Your task to perform on an android device: Search for Italian restaurants on Maps Image 0: 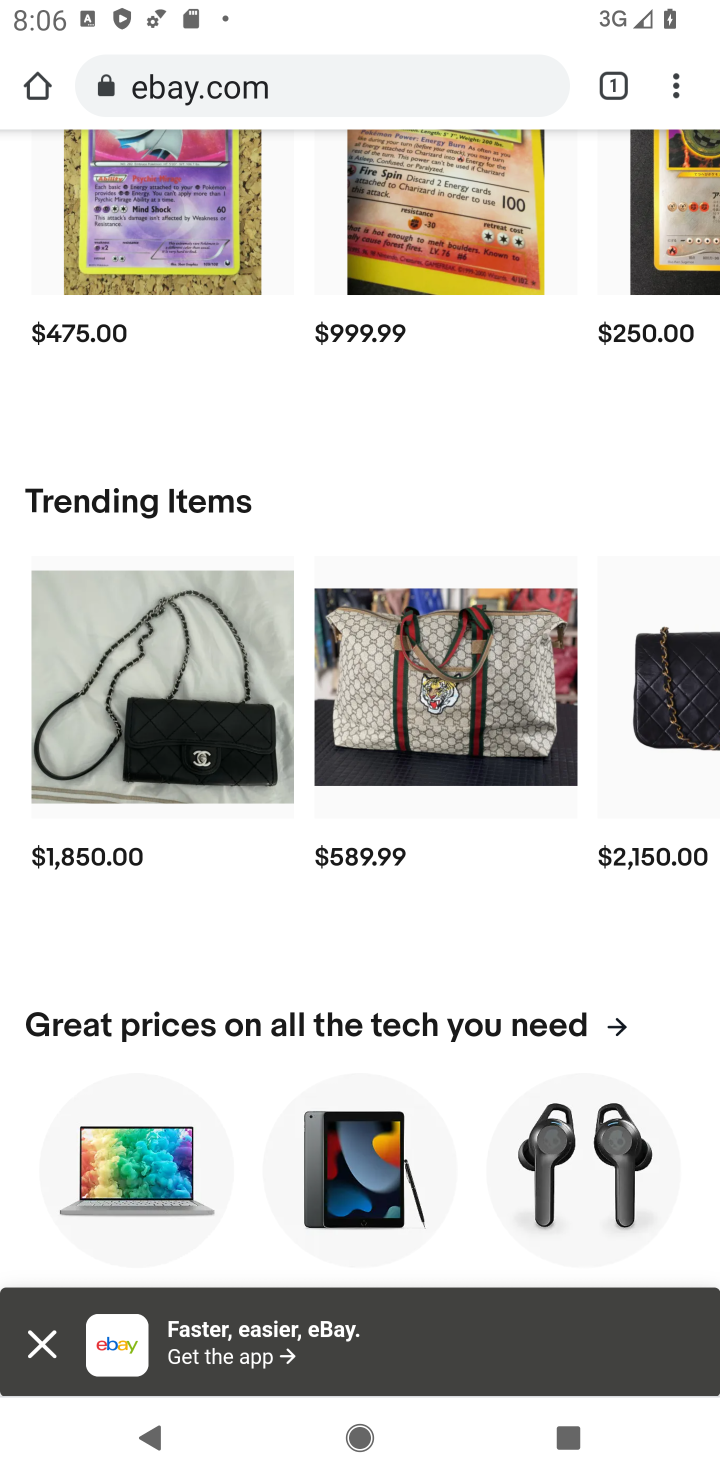
Step 0: press home button
Your task to perform on an android device: Search for Italian restaurants on Maps Image 1: 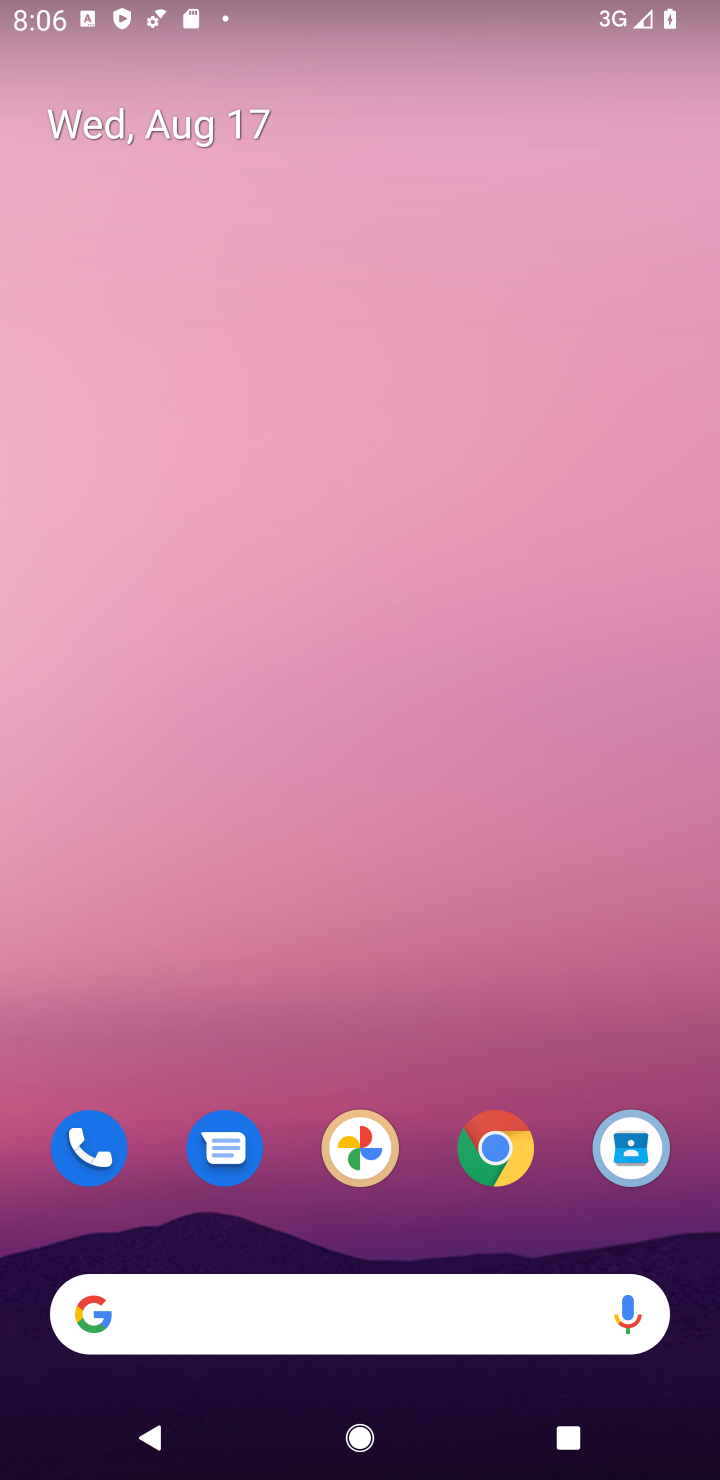
Step 1: drag from (559, 1230) to (575, 221)
Your task to perform on an android device: Search for Italian restaurants on Maps Image 2: 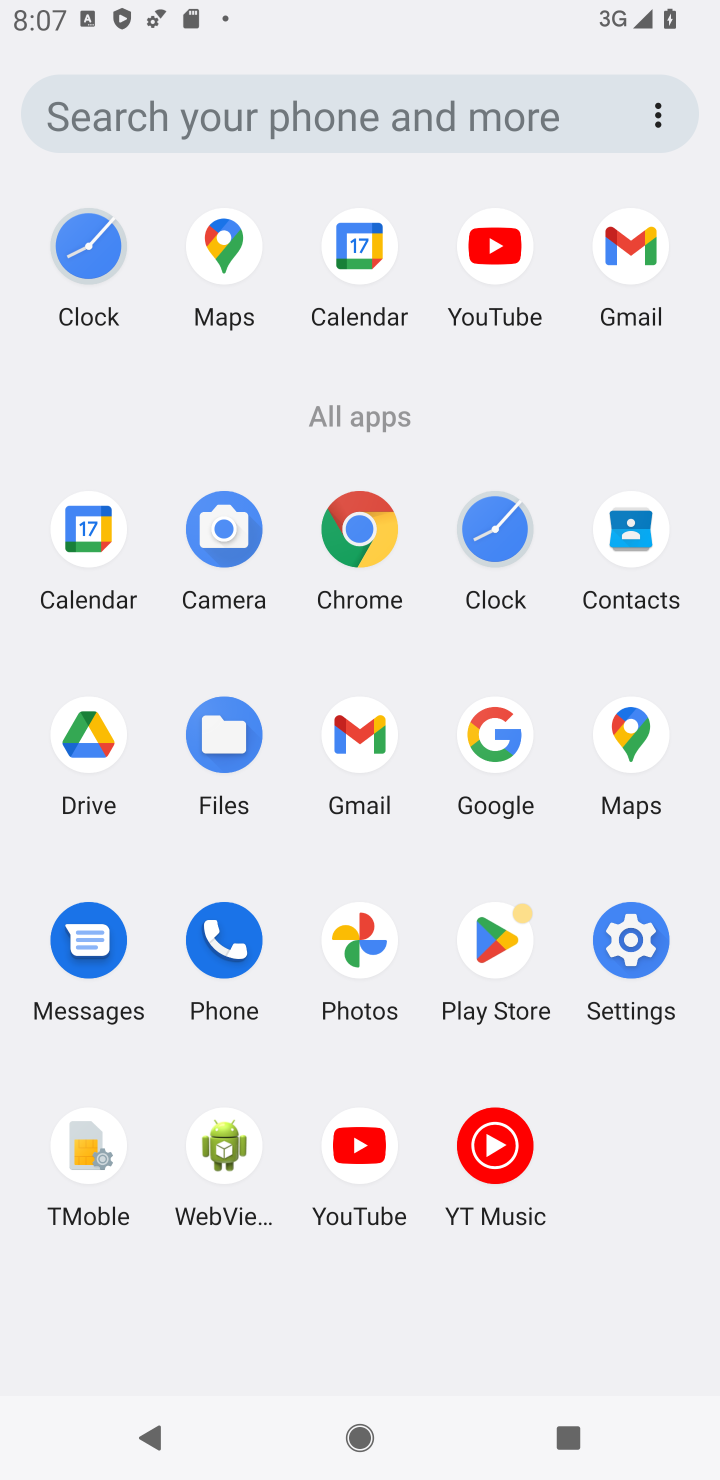
Step 2: click (627, 734)
Your task to perform on an android device: Search for Italian restaurants on Maps Image 3: 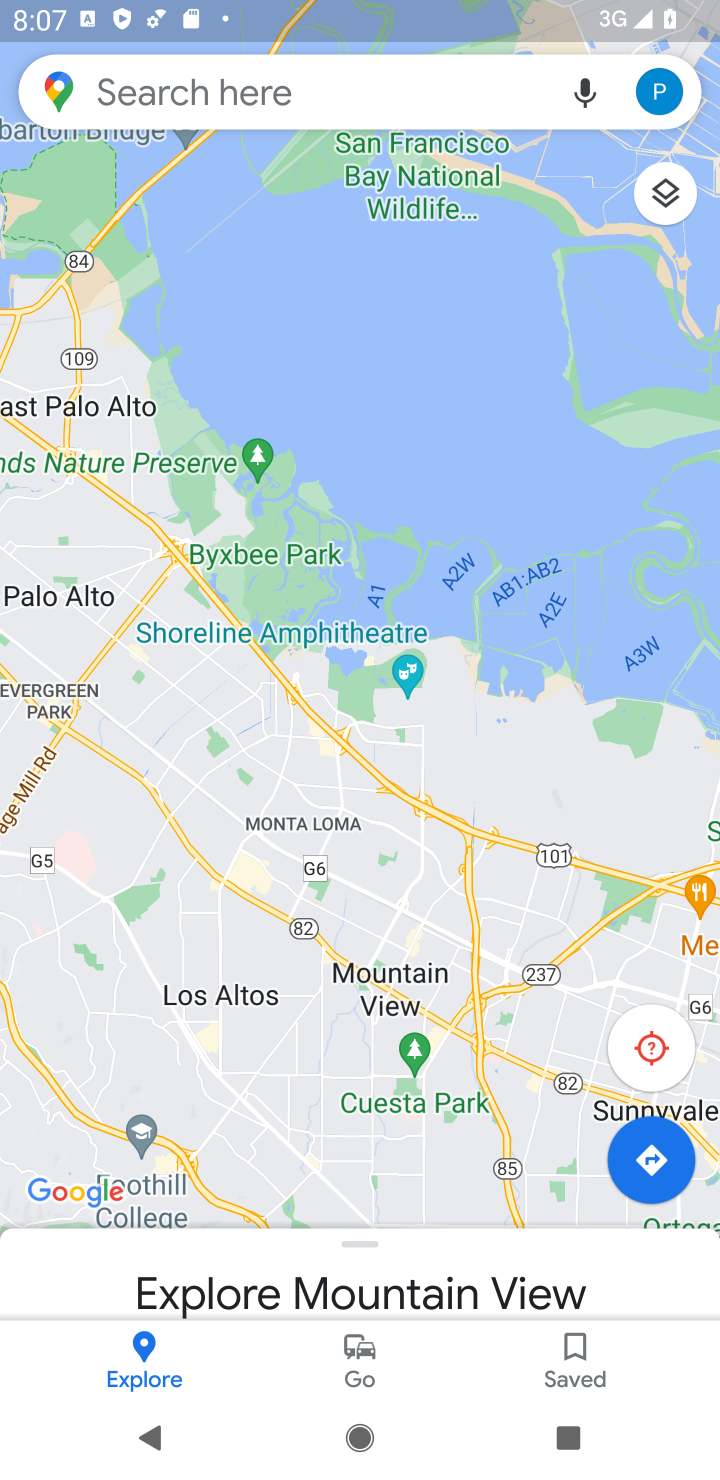
Step 3: click (250, 86)
Your task to perform on an android device: Search for Italian restaurants on Maps Image 4: 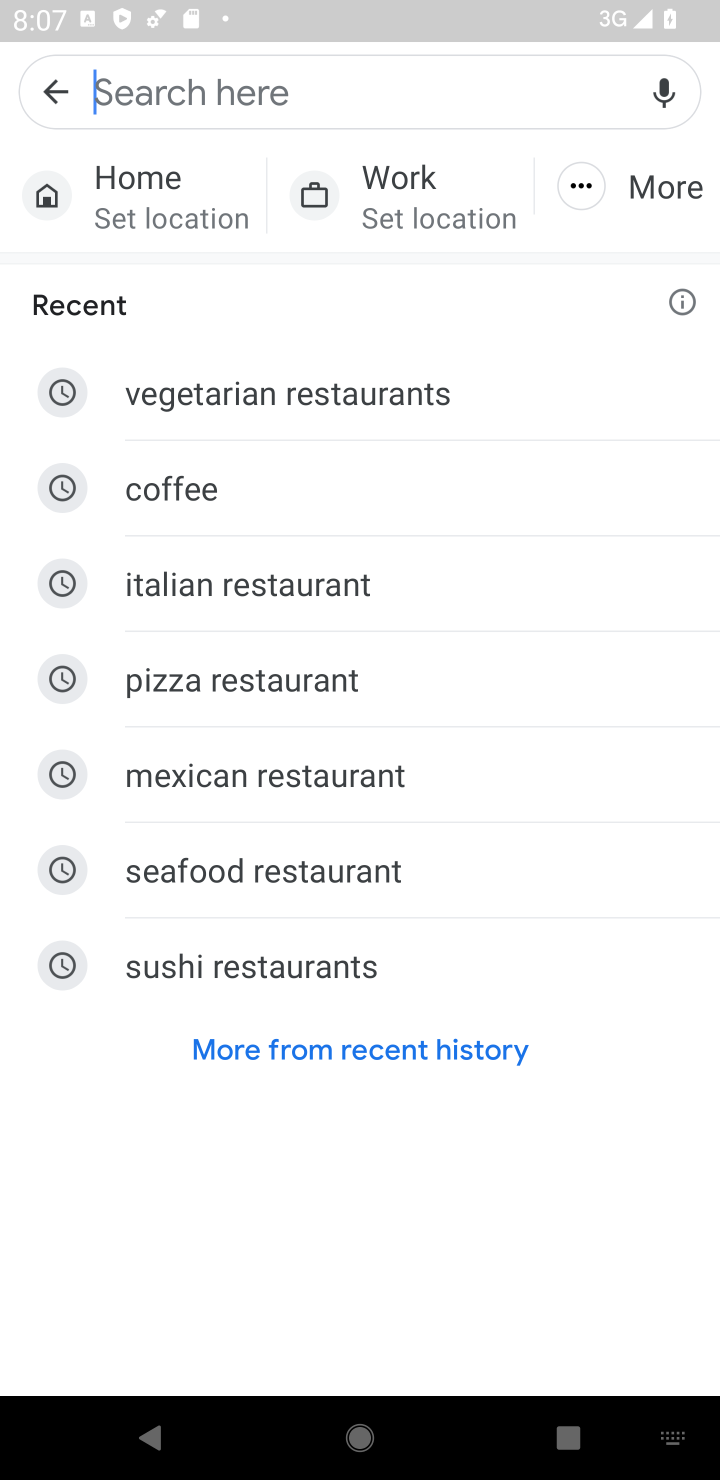
Step 4: type "italian restaurants"
Your task to perform on an android device: Search for Italian restaurants on Maps Image 5: 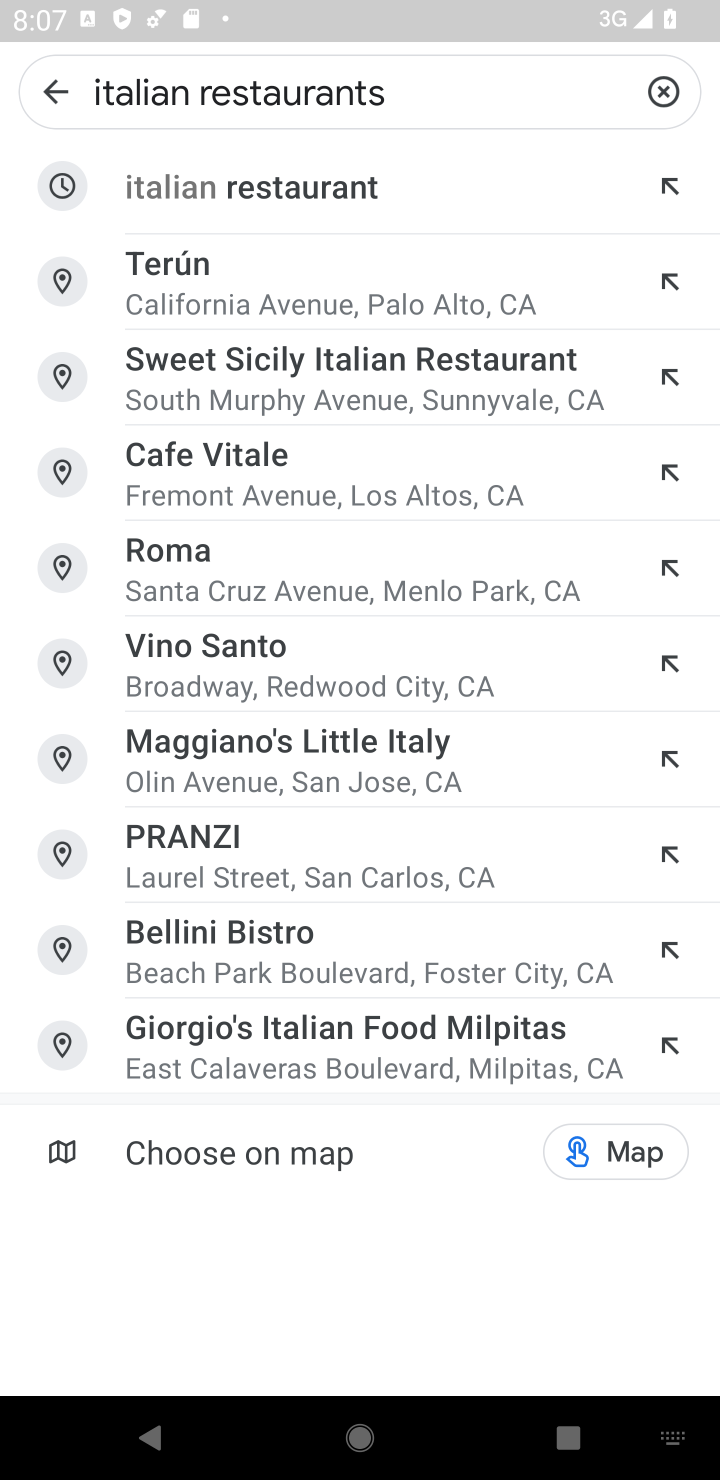
Step 5: click (259, 173)
Your task to perform on an android device: Search for Italian restaurants on Maps Image 6: 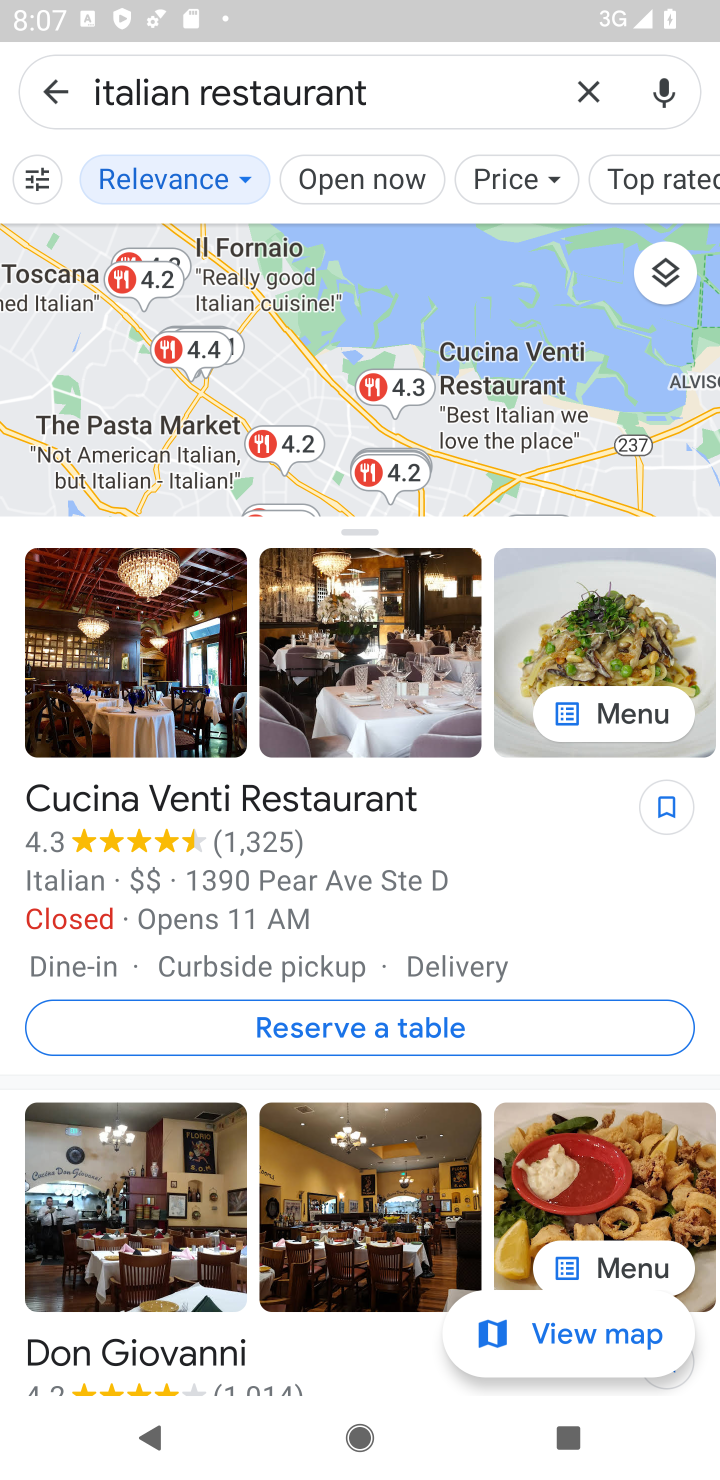
Step 6: task complete